Your task to perform on an android device: manage bookmarks in the chrome app Image 0: 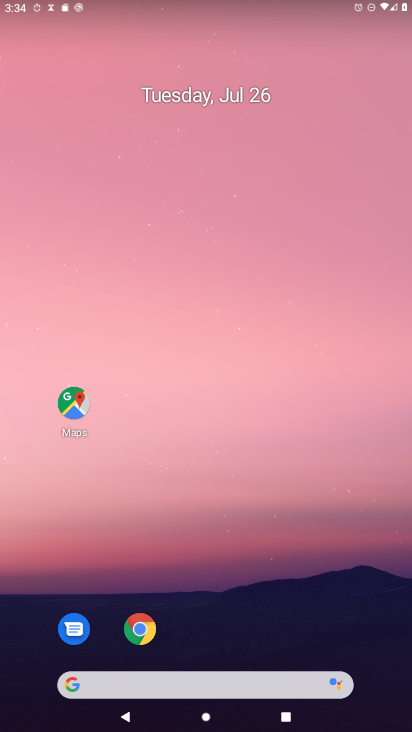
Step 0: drag from (247, 602) to (284, 112)
Your task to perform on an android device: manage bookmarks in the chrome app Image 1: 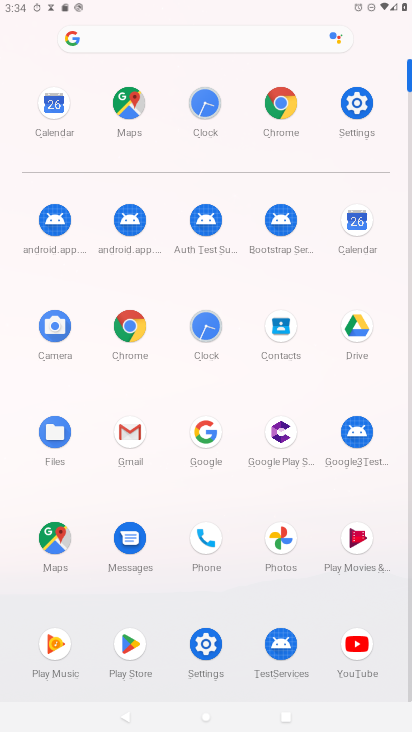
Step 1: click (117, 315)
Your task to perform on an android device: manage bookmarks in the chrome app Image 2: 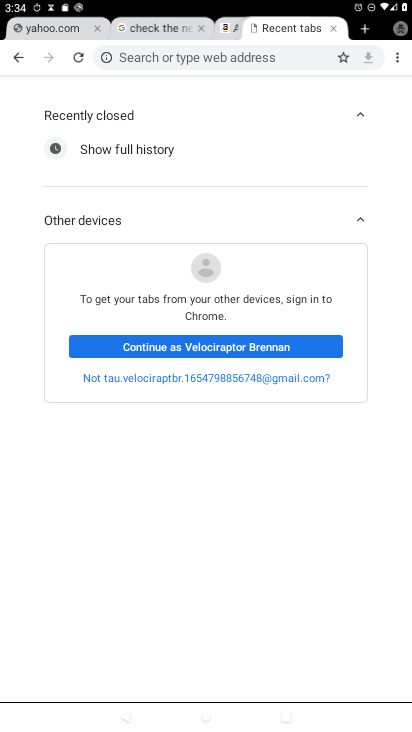
Step 2: task complete